Your task to perform on an android device: change your default location settings in chrome Image 0: 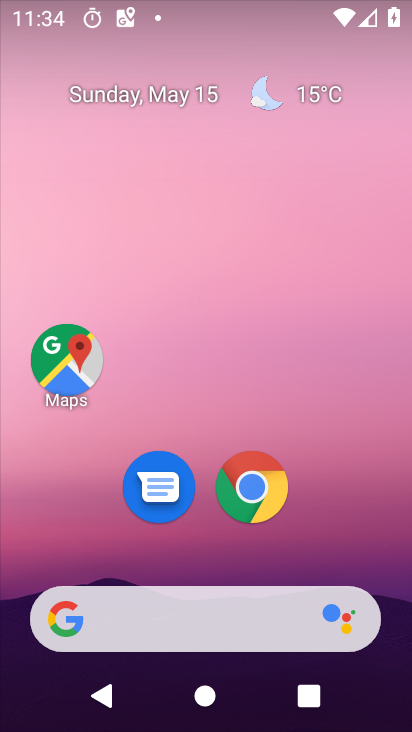
Step 0: click (249, 484)
Your task to perform on an android device: change your default location settings in chrome Image 1: 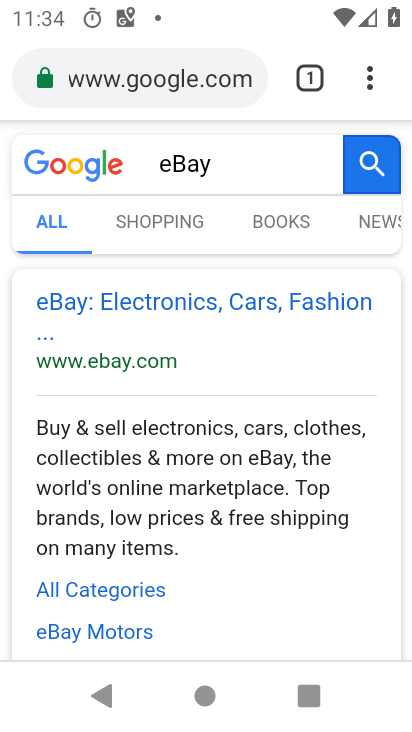
Step 1: click (364, 69)
Your task to perform on an android device: change your default location settings in chrome Image 2: 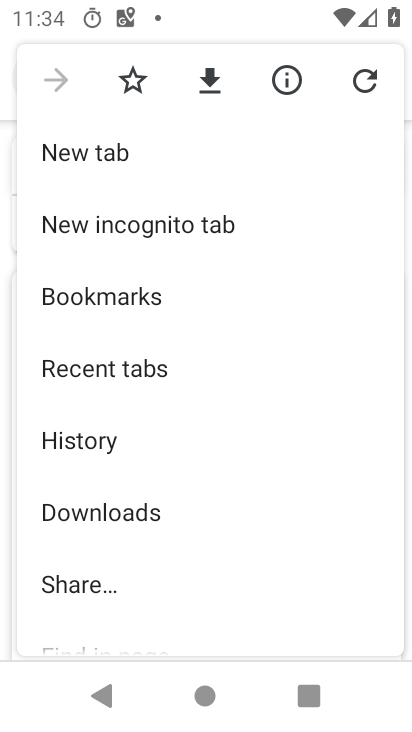
Step 2: drag from (216, 604) to (223, 360)
Your task to perform on an android device: change your default location settings in chrome Image 3: 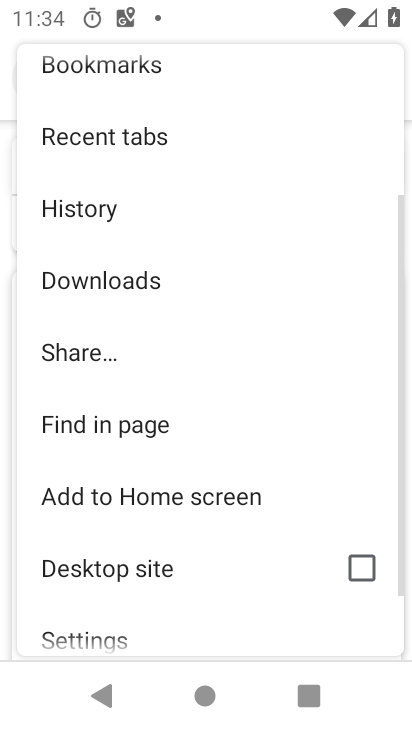
Step 3: drag from (195, 602) to (204, 404)
Your task to perform on an android device: change your default location settings in chrome Image 4: 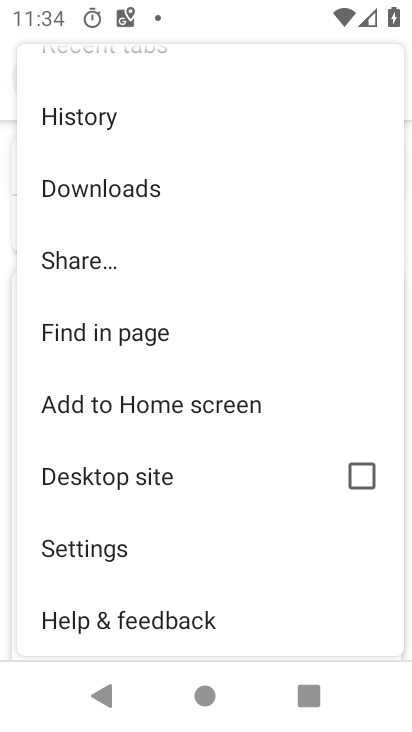
Step 4: click (74, 550)
Your task to perform on an android device: change your default location settings in chrome Image 5: 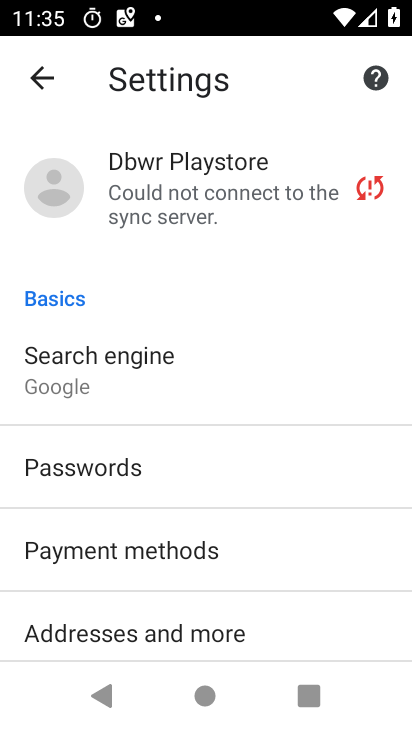
Step 5: task complete